Your task to perform on an android device: allow cookies in the chrome app Image 0: 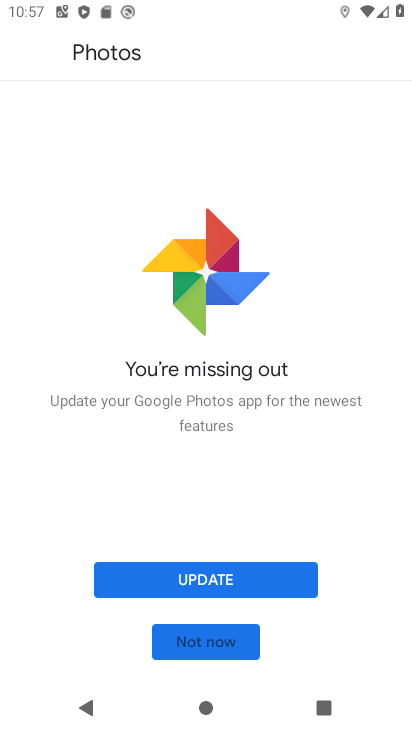
Step 0: press home button
Your task to perform on an android device: allow cookies in the chrome app Image 1: 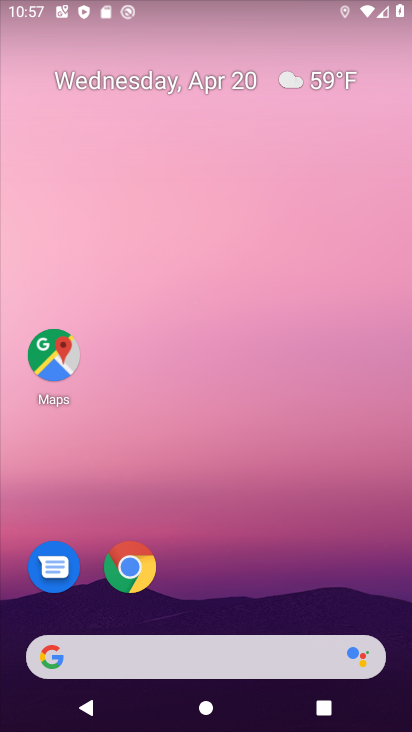
Step 1: click (104, 567)
Your task to perform on an android device: allow cookies in the chrome app Image 2: 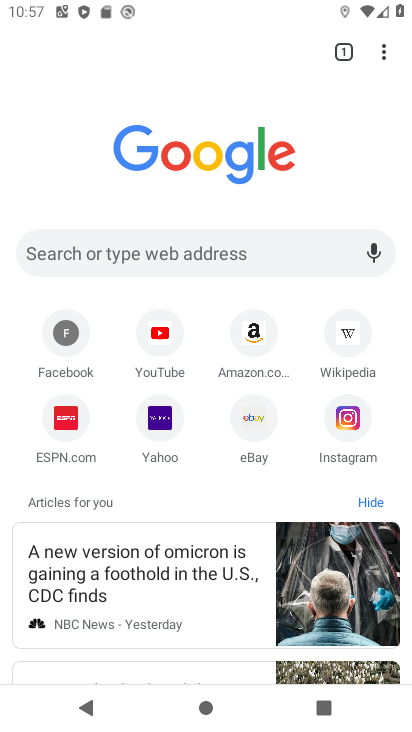
Step 2: click (378, 59)
Your task to perform on an android device: allow cookies in the chrome app Image 3: 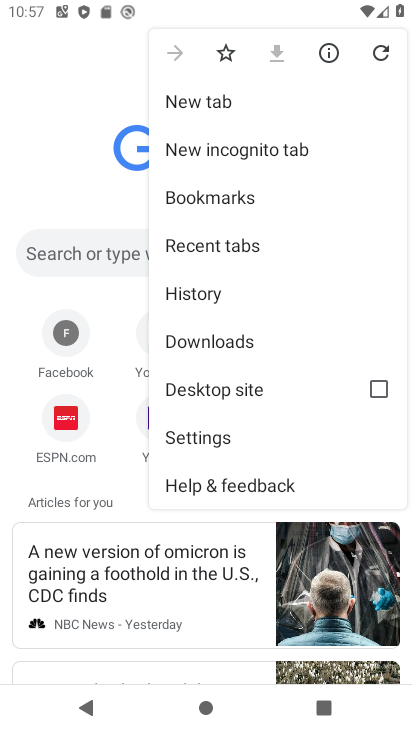
Step 3: click (202, 430)
Your task to perform on an android device: allow cookies in the chrome app Image 4: 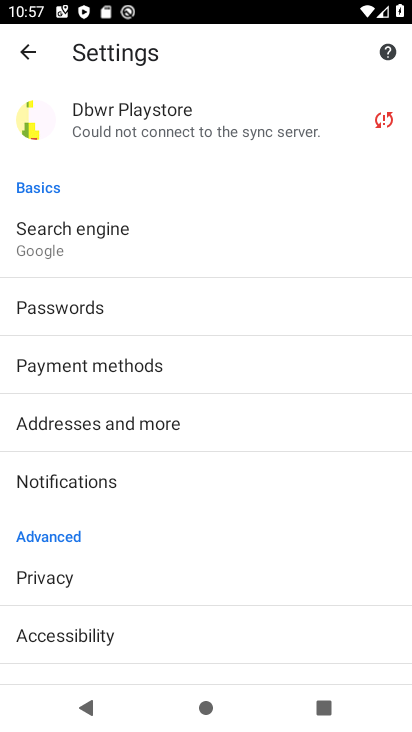
Step 4: drag from (147, 560) to (137, 413)
Your task to perform on an android device: allow cookies in the chrome app Image 5: 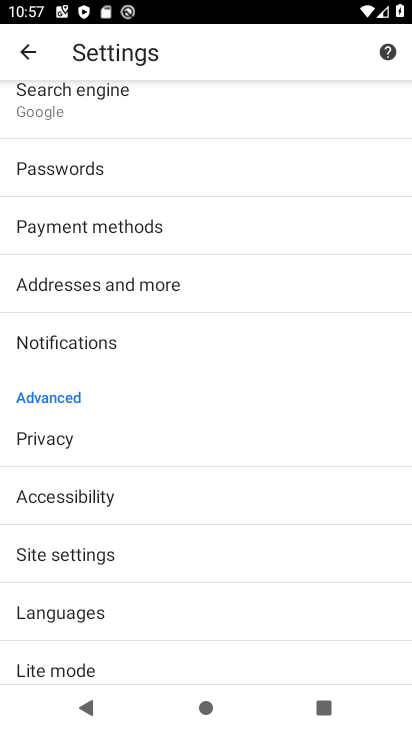
Step 5: drag from (147, 465) to (136, 378)
Your task to perform on an android device: allow cookies in the chrome app Image 6: 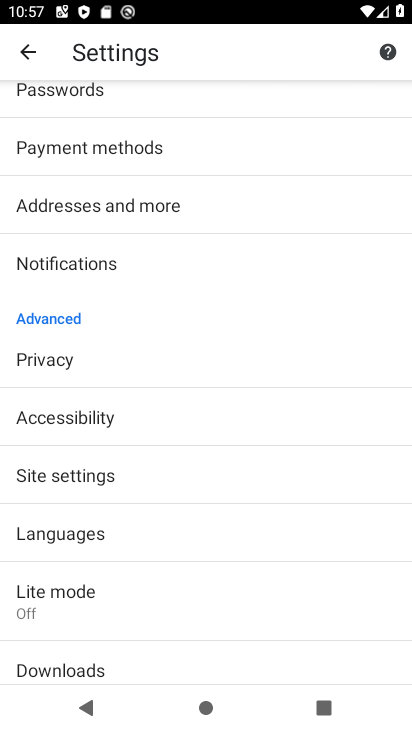
Step 6: click (152, 478)
Your task to perform on an android device: allow cookies in the chrome app Image 7: 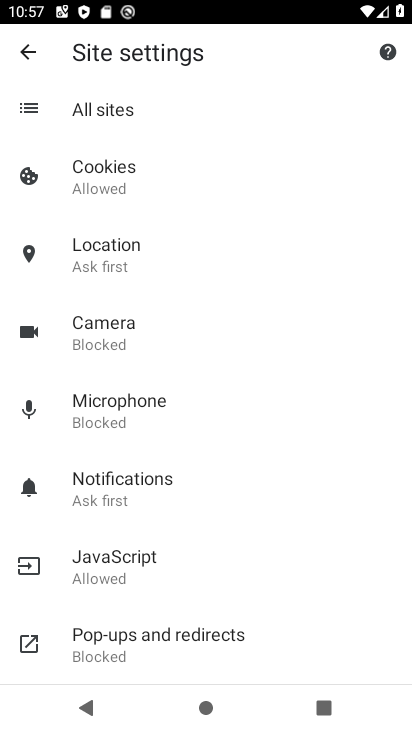
Step 7: click (122, 195)
Your task to perform on an android device: allow cookies in the chrome app Image 8: 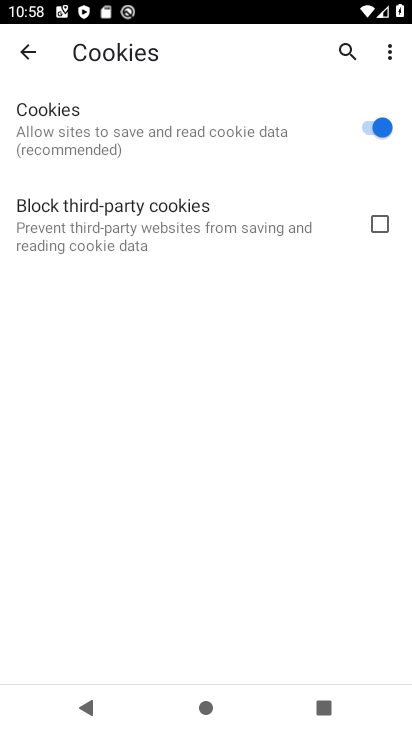
Step 8: task complete